Your task to perform on an android device: Open Wikipedia Image 0: 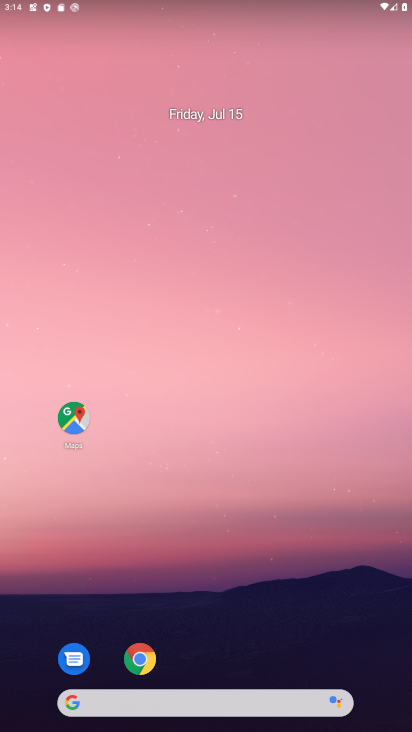
Step 0: click (146, 667)
Your task to perform on an android device: Open Wikipedia Image 1: 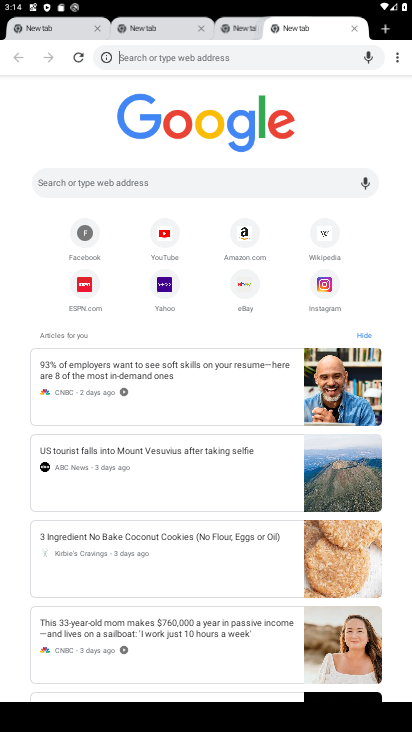
Step 1: click (108, 180)
Your task to perform on an android device: Open Wikipedia Image 2: 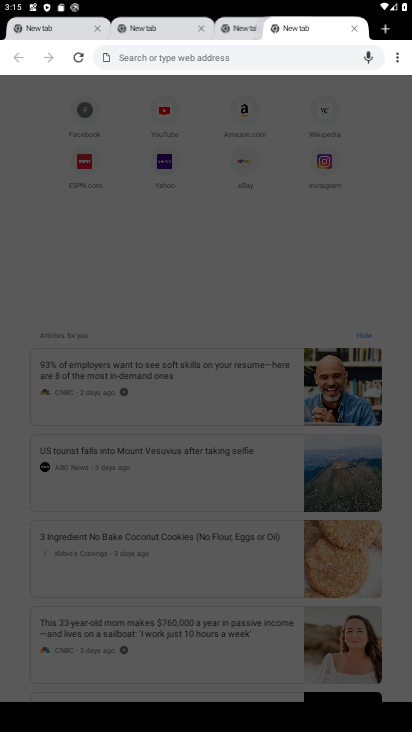
Step 2: click (133, 52)
Your task to perform on an android device: Open Wikipedia Image 3: 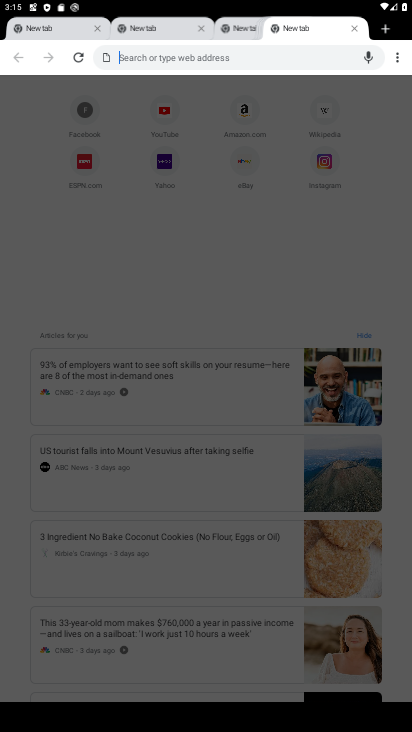
Step 3: type "Wikipedia"
Your task to perform on an android device: Open Wikipedia Image 4: 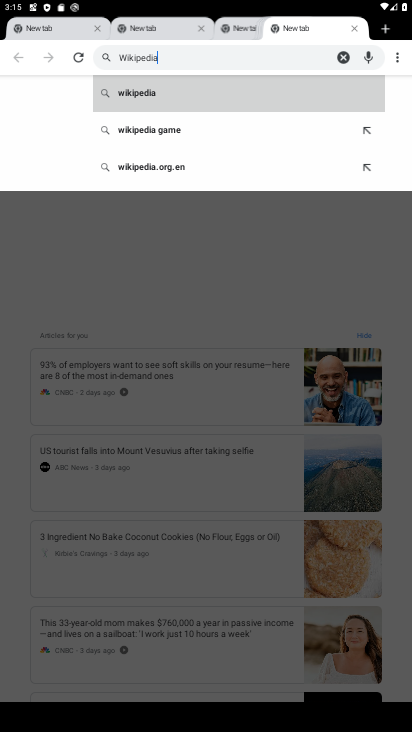
Step 4: type ""
Your task to perform on an android device: Open Wikipedia Image 5: 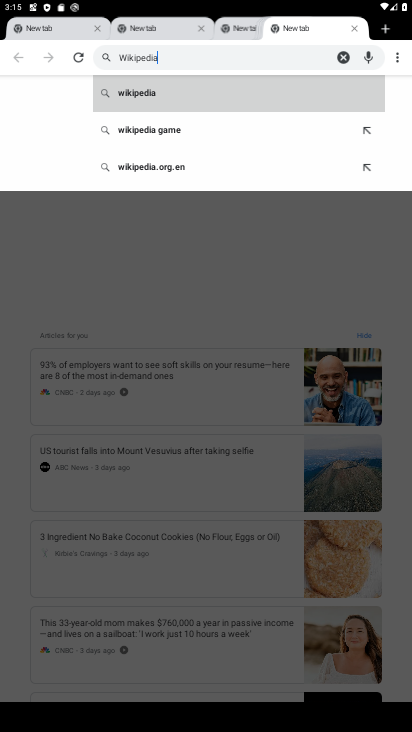
Step 5: click (166, 106)
Your task to perform on an android device: Open Wikipedia Image 6: 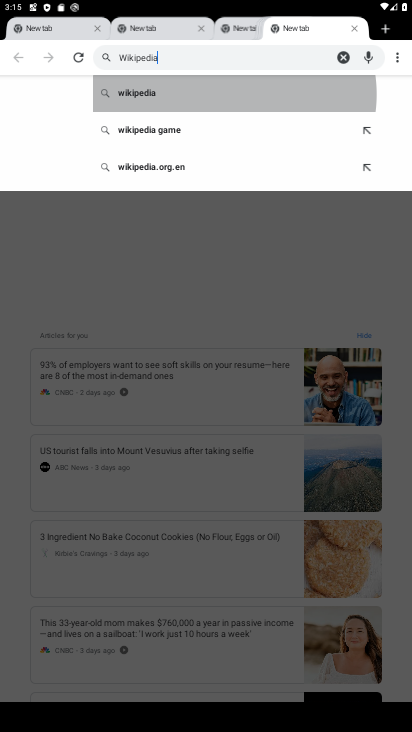
Step 6: click (166, 99)
Your task to perform on an android device: Open Wikipedia Image 7: 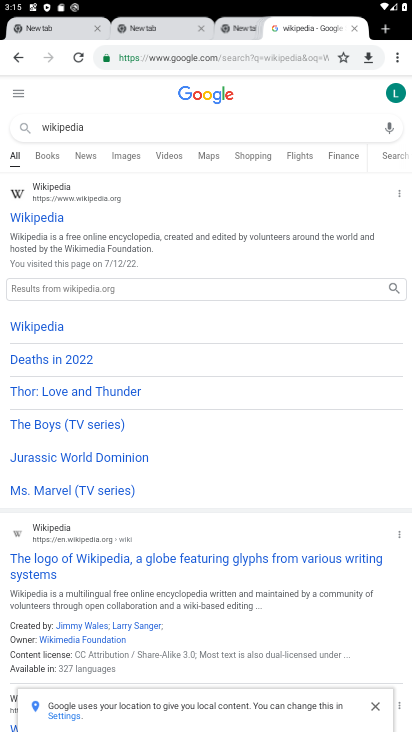
Step 7: task complete